Your task to perform on an android device: Open calendar and show me the first week of next month Image 0: 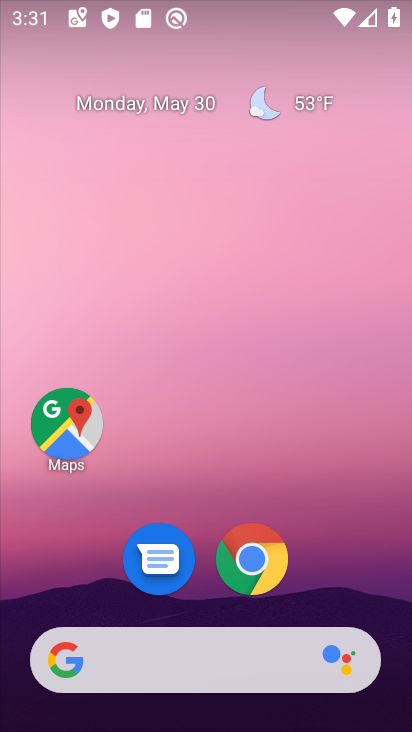
Step 0: drag from (159, 726) to (158, 70)
Your task to perform on an android device: Open calendar and show me the first week of next month Image 1: 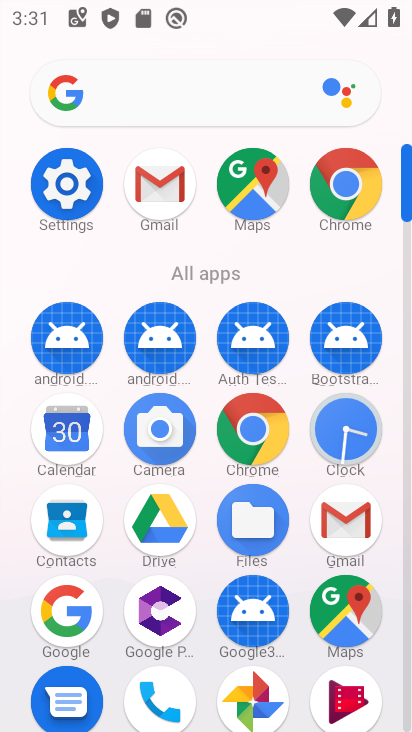
Step 1: click (70, 434)
Your task to perform on an android device: Open calendar and show me the first week of next month Image 2: 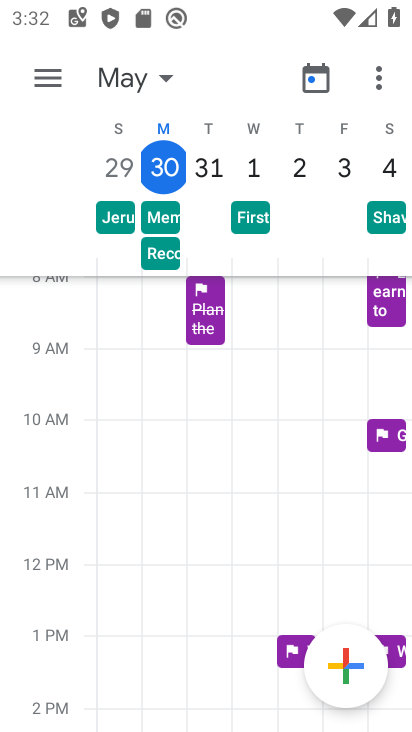
Step 2: click (164, 72)
Your task to perform on an android device: Open calendar and show me the first week of next month Image 3: 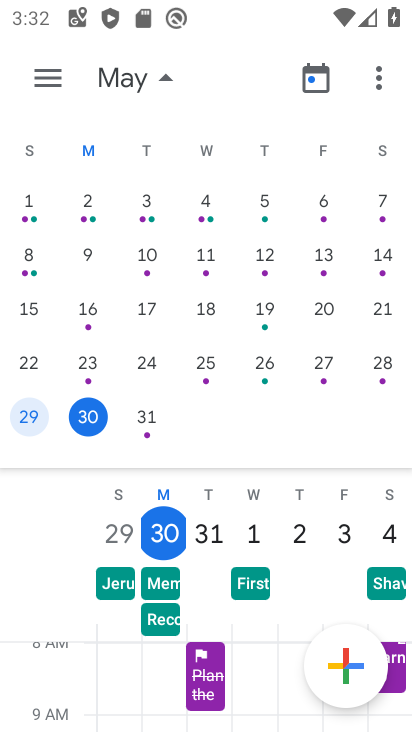
Step 3: drag from (336, 281) to (166, 281)
Your task to perform on an android device: Open calendar and show me the first week of next month Image 4: 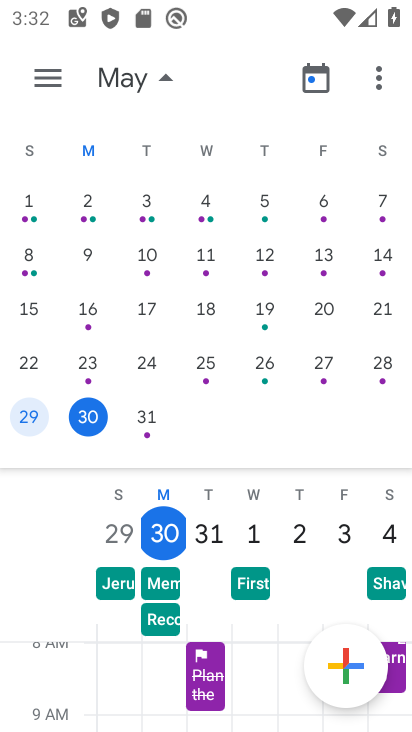
Step 4: drag from (379, 257) to (14, 250)
Your task to perform on an android device: Open calendar and show me the first week of next month Image 5: 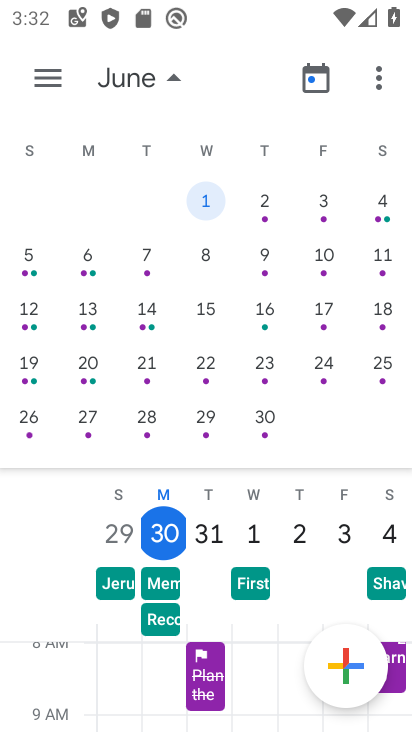
Step 5: click (86, 254)
Your task to perform on an android device: Open calendar and show me the first week of next month Image 6: 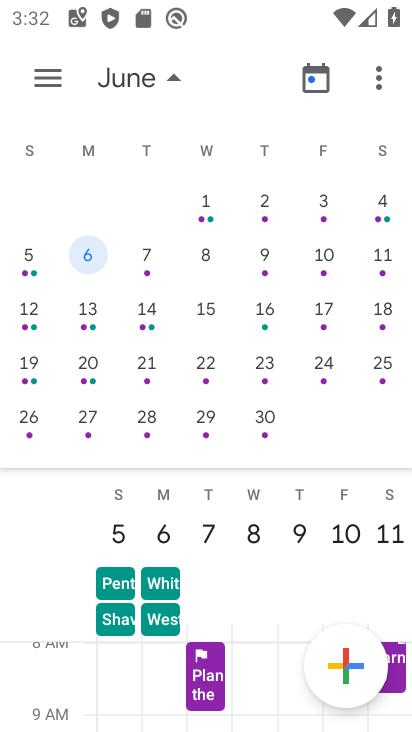
Step 6: click (52, 72)
Your task to perform on an android device: Open calendar and show me the first week of next month Image 7: 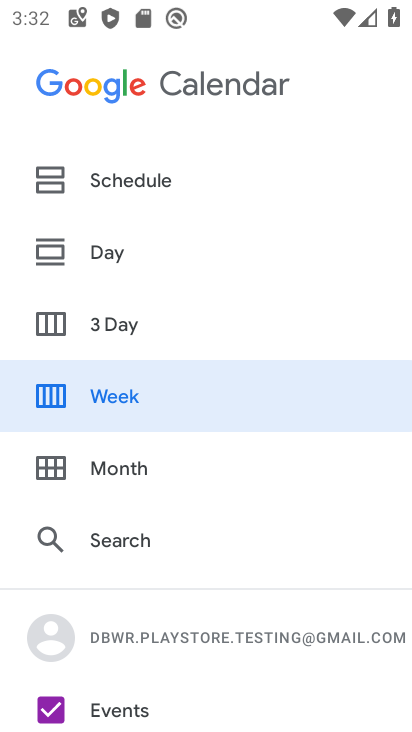
Step 7: click (129, 398)
Your task to perform on an android device: Open calendar and show me the first week of next month Image 8: 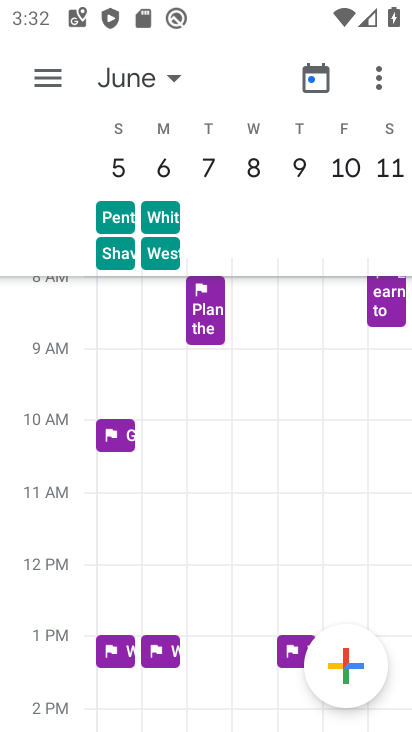
Step 8: task complete